Your task to perform on an android device: Open wifi settings Image 0: 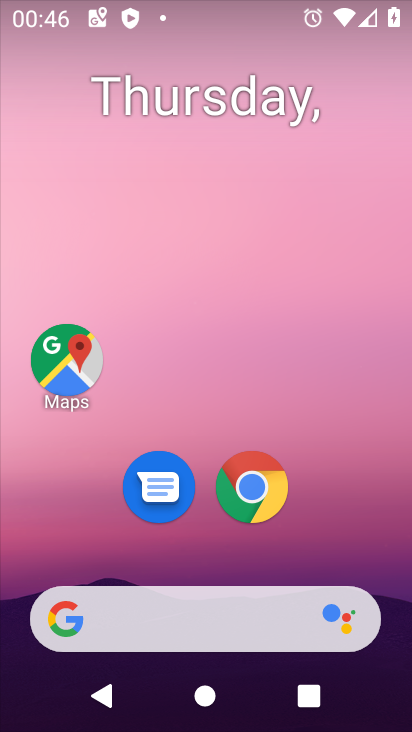
Step 0: drag from (362, 565) to (298, 8)
Your task to perform on an android device: Open wifi settings Image 1: 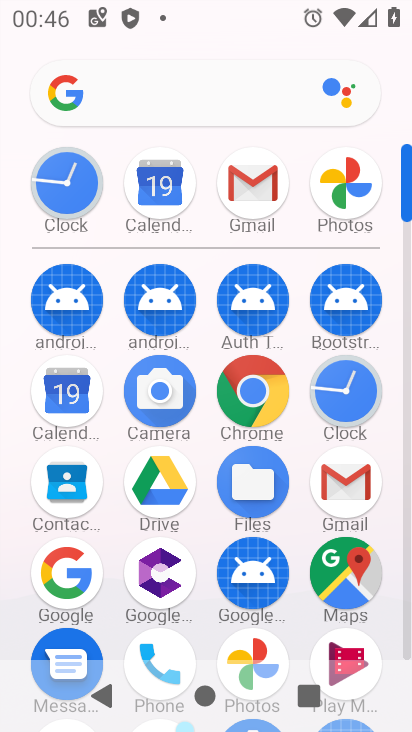
Step 1: drag from (403, 558) to (408, 524)
Your task to perform on an android device: Open wifi settings Image 2: 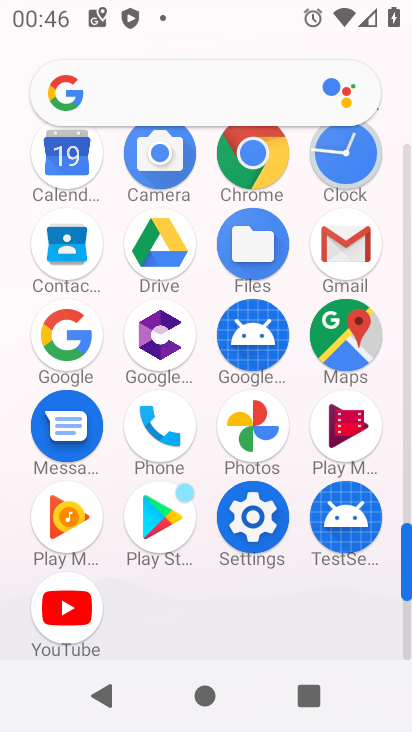
Step 2: click (265, 523)
Your task to perform on an android device: Open wifi settings Image 3: 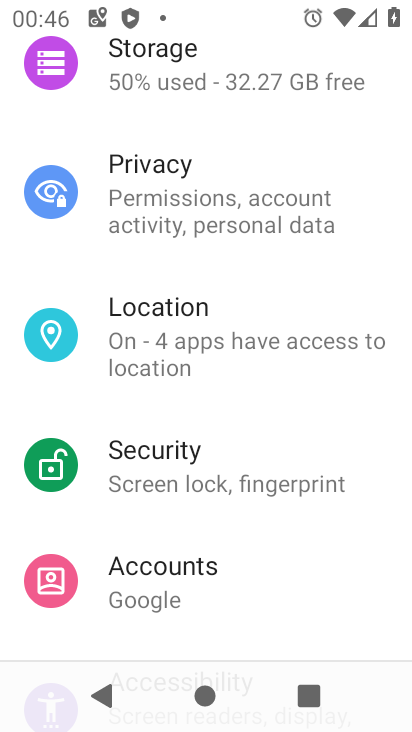
Step 3: drag from (263, 178) to (277, 512)
Your task to perform on an android device: Open wifi settings Image 4: 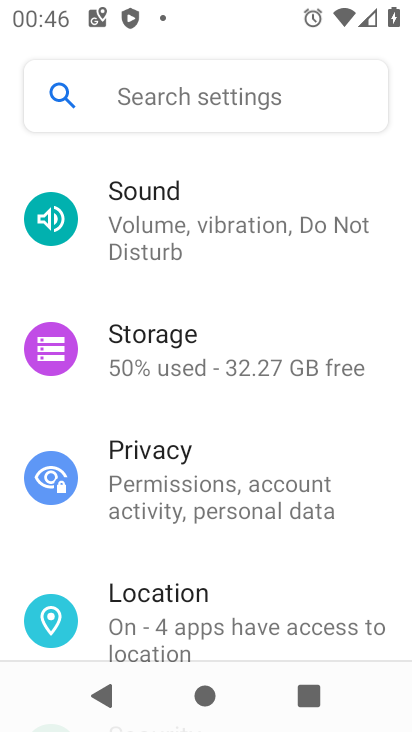
Step 4: drag from (268, 151) to (300, 524)
Your task to perform on an android device: Open wifi settings Image 5: 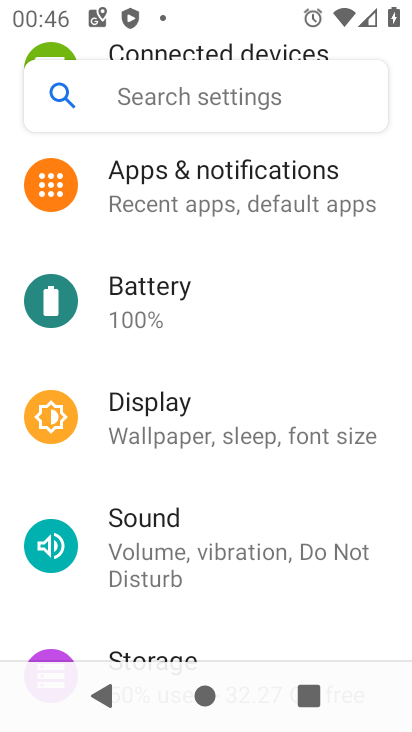
Step 5: drag from (250, 265) to (254, 540)
Your task to perform on an android device: Open wifi settings Image 6: 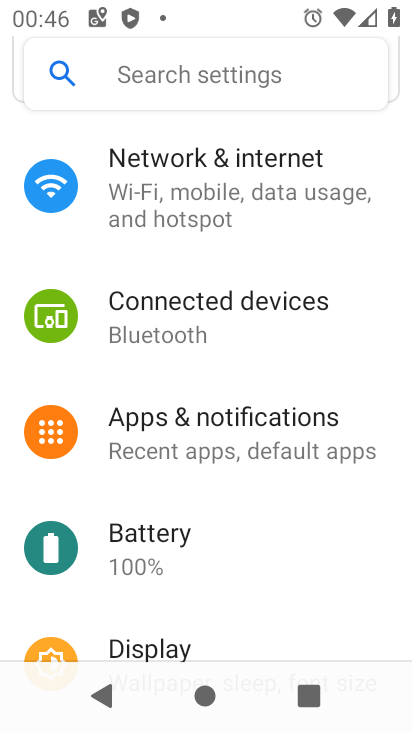
Step 6: click (194, 205)
Your task to perform on an android device: Open wifi settings Image 7: 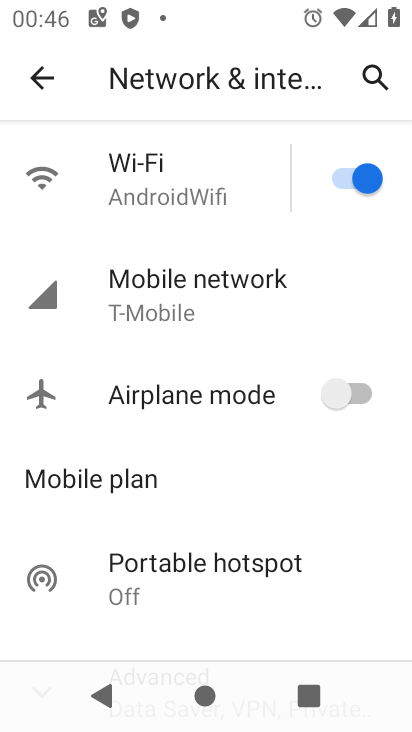
Step 7: click (135, 195)
Your task to perform on an android device: Open wifi settings Image 8: 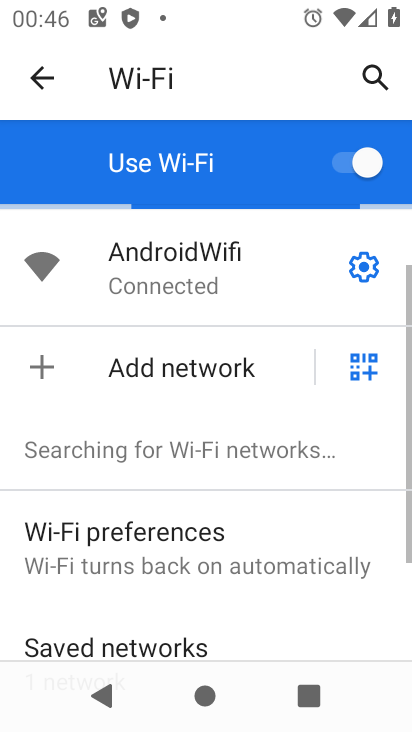
Step 8: task complete